Your task to perform on an android device: Open the map Image 0: 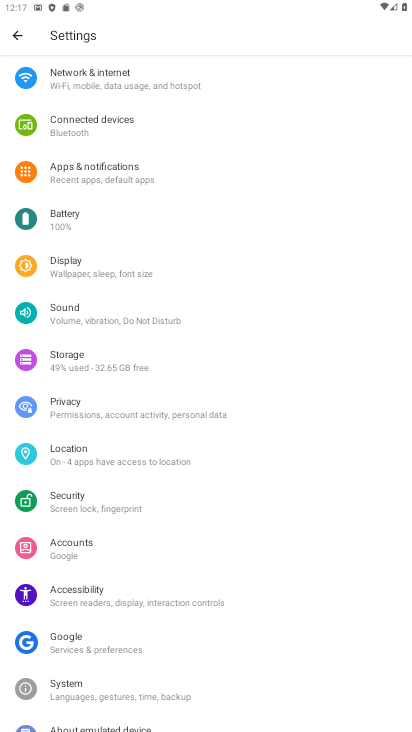
Step 0: press home button
Your task to perform on an android device: Open the map Image 1: 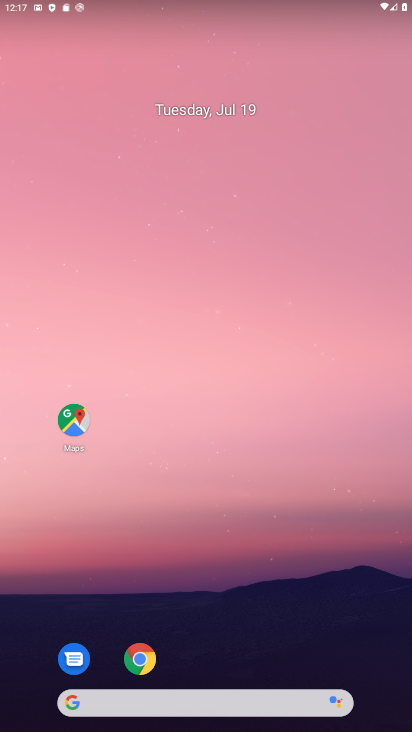
Step 1: click (73, 425)
Your task to perform on an android device: Open the map Image 2: 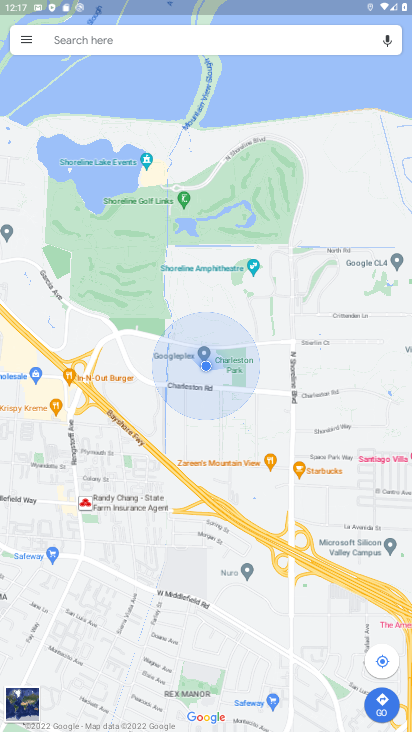
Step 2: task complete